Your task to perform on an android device: What's the weather going to be this weekend? Image 0: 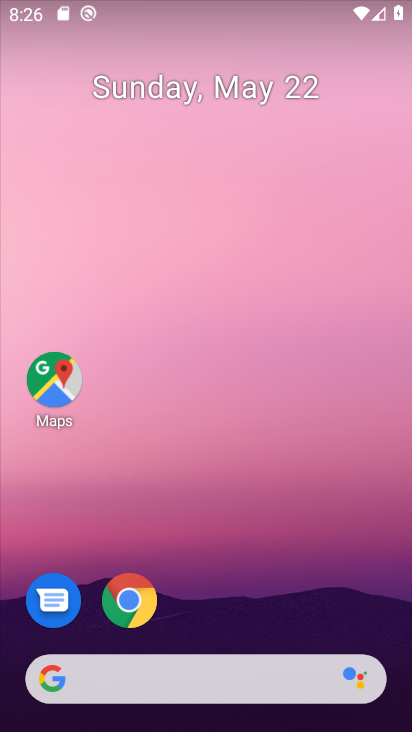
Step 0: drag from (219, 627) to (245, 137)
Your task to perform on an android device: What's the weather going to be this weekend? Image 1: 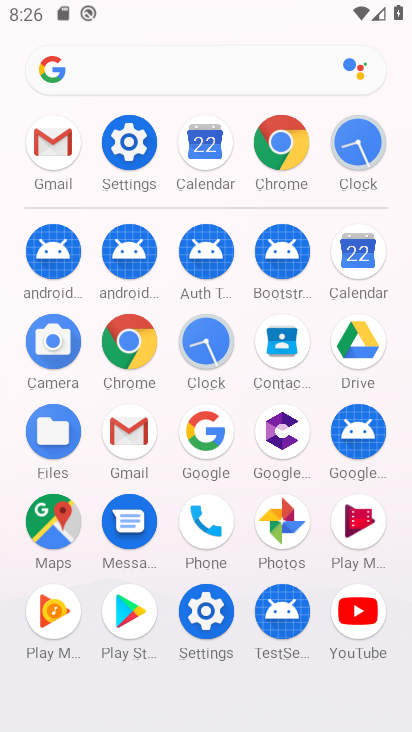
Step 1: click (195, 439)
Your task to perform on an android device: What's the weather going to be this weekend? Image 2: 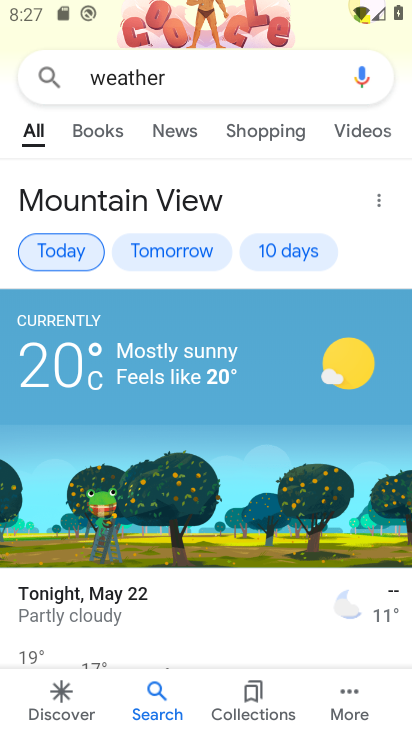
Step 2: click (320, 254)
Your task to perform on an android device: What's the weather going to be this weekend? Image 3: 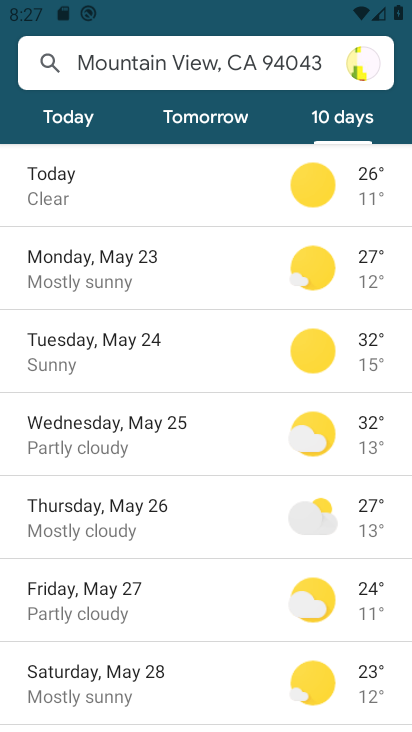
Step 3: task complete